Your task to perform on an android device: open app "PlayWell" (install if not already installed) and go to login screen Image 0: 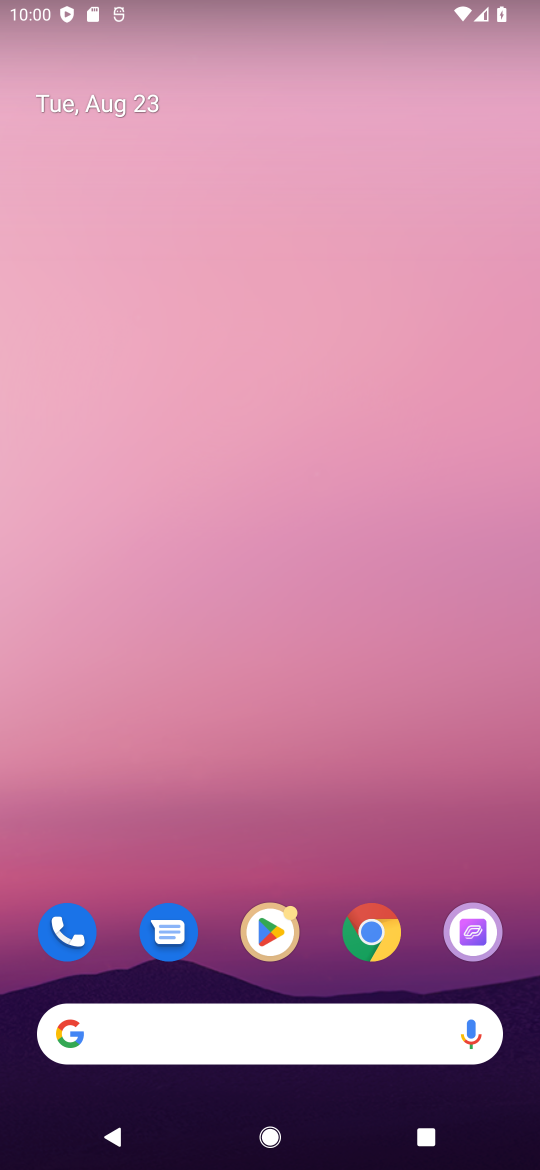
Step 0: click (258, 933)
Your task to perform on an android device: open app "PlayWell" (install if not already installed) and go to login screen Image 1: 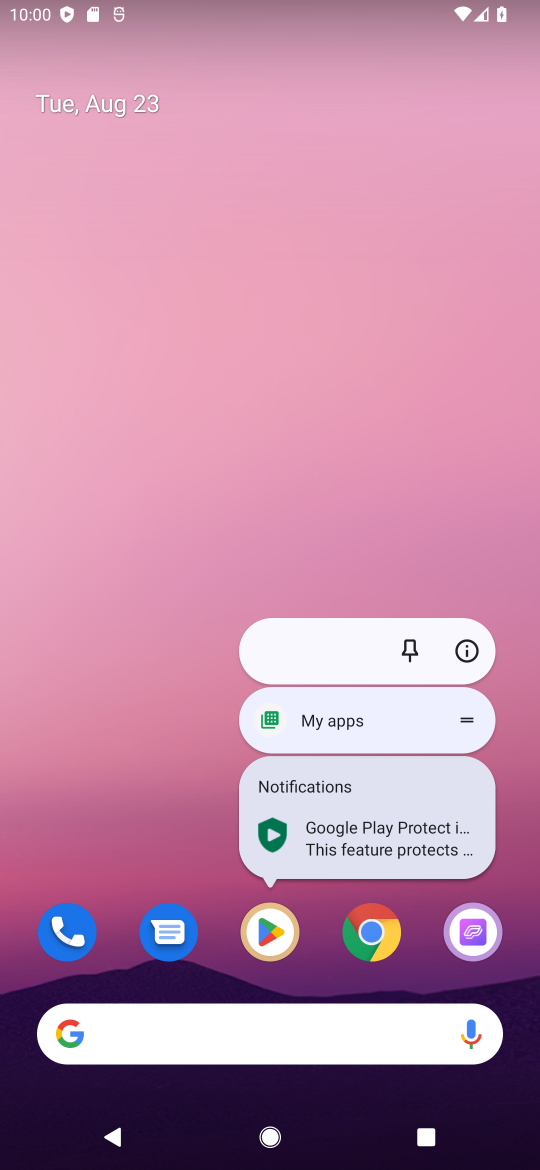
Step 1: click (270, 928)
Your task to perform on an android device: open app "PlayWell" (install if not already installed) and go to login screen Image 2: 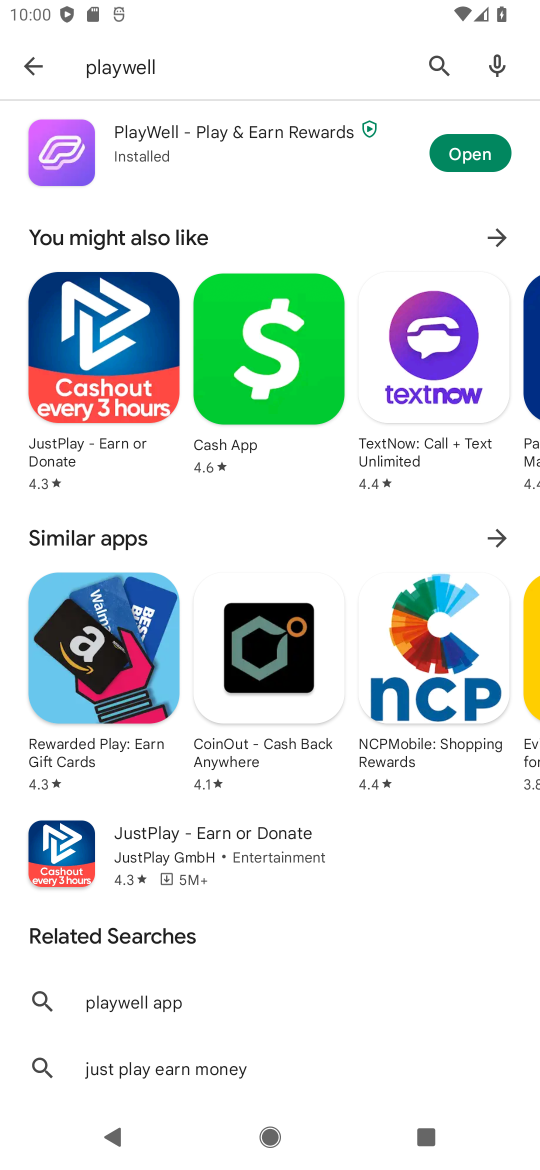
Step 2: click (430, 70)
Your task to perform on an android device: open app "PlayWell" (install if not already installed) and go to login screen Image 3: 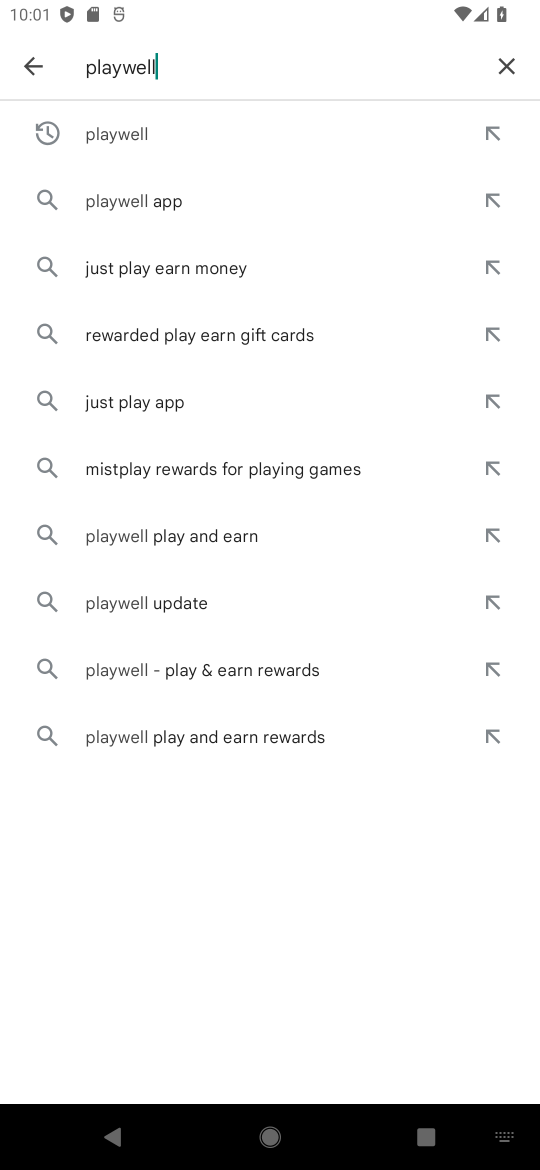
Step 3: click (520, 55)
Your task to perform on an android device: open app "PlayWell" (install if not already installed) and go to login screen Image 4: 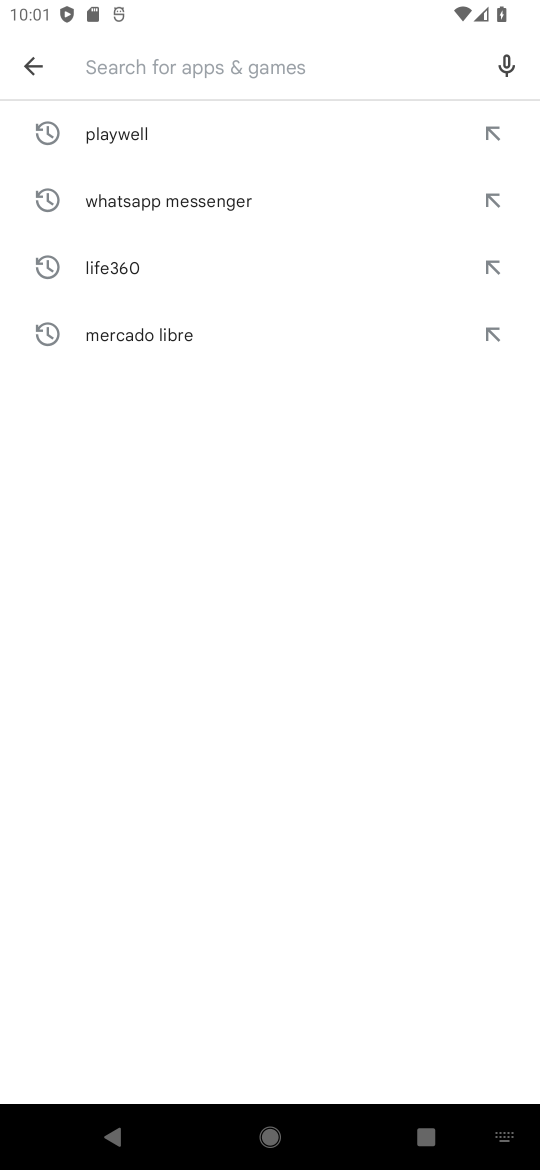
Step 4: click (153, 131)
Your task to perform on an android device: open app "PlayWell" (install if not already installed) and go to login screen Image 5: 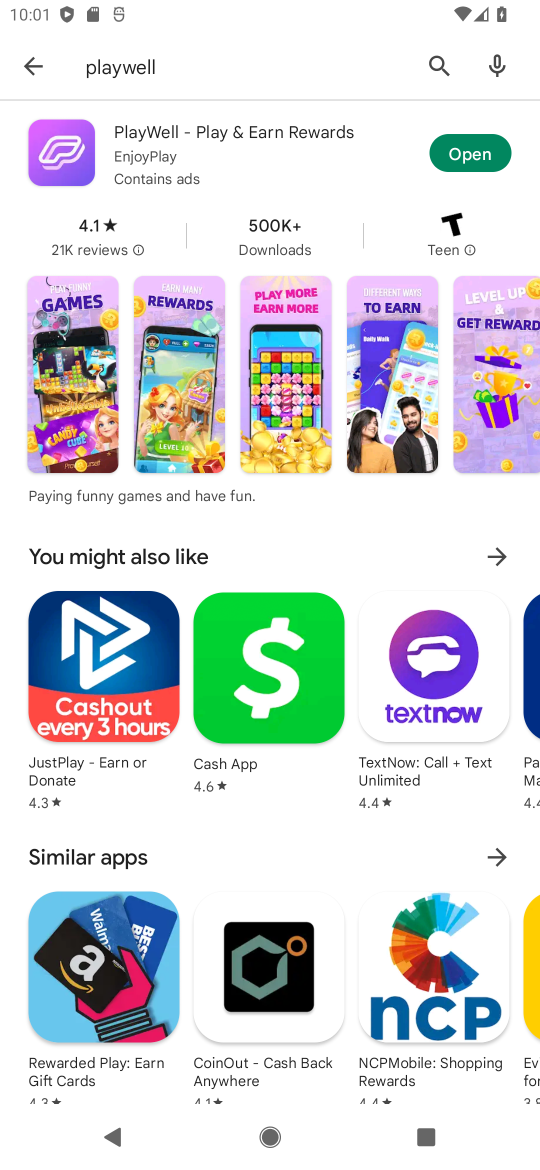
Step 5: click (462, 153)
Your task to perform on an android device: open app "PlayWell" (install if not already installed) and go to login screen Image 6: 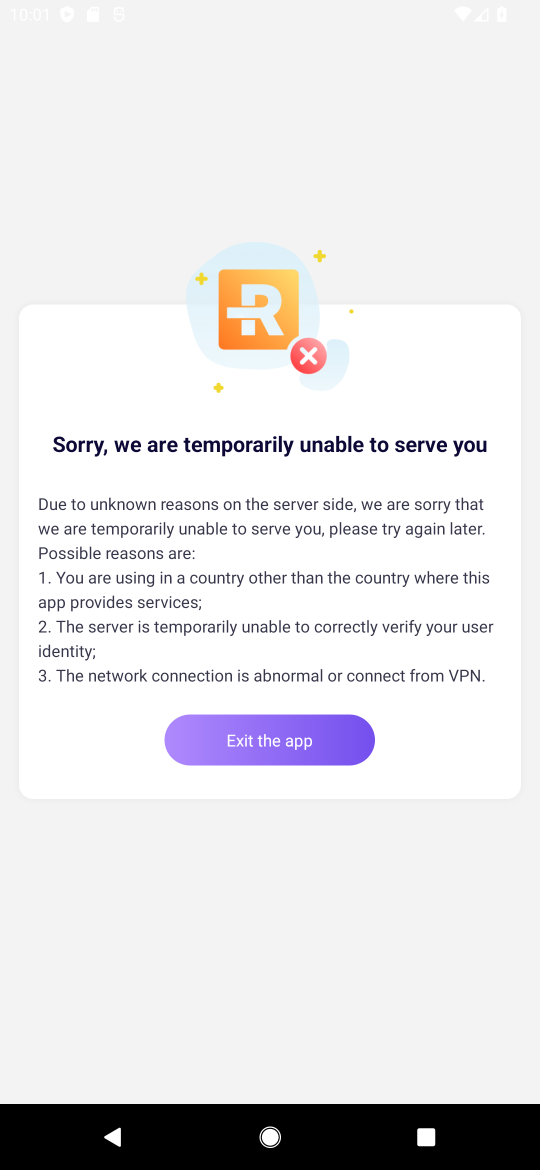
Step 6: task complete